Your task to perform on an android device: Search for vegetarian restaurants on Maps Image 0: 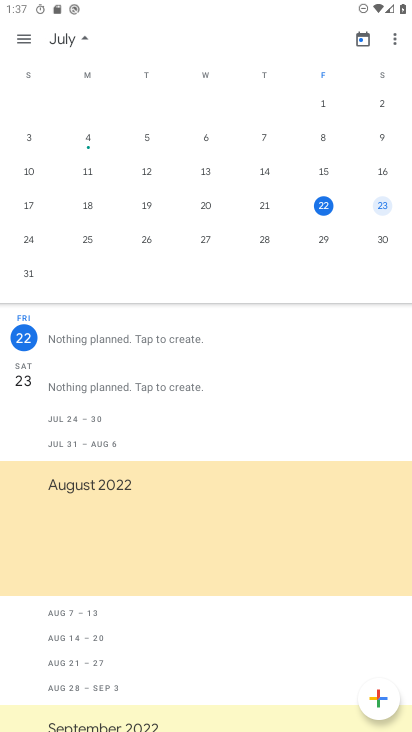
Step 0: press home button
Your task to perform on an android device: Search for vegetarian restaurants on Maps Image 1: 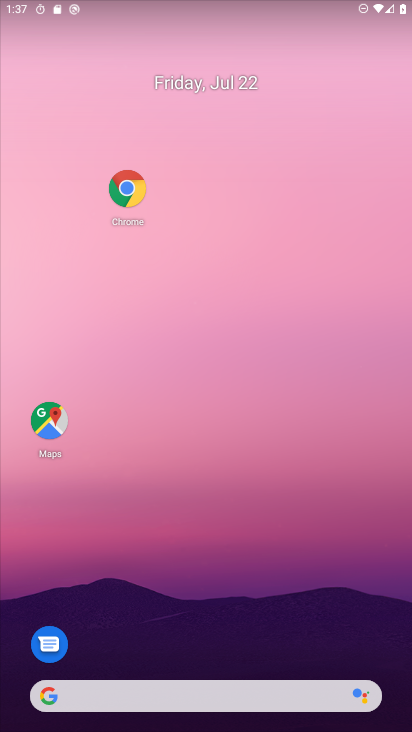
Step 1: click (63, 407)
Your task to perform on an android device: Search for vegetarian restaurants on Maps Image 2: 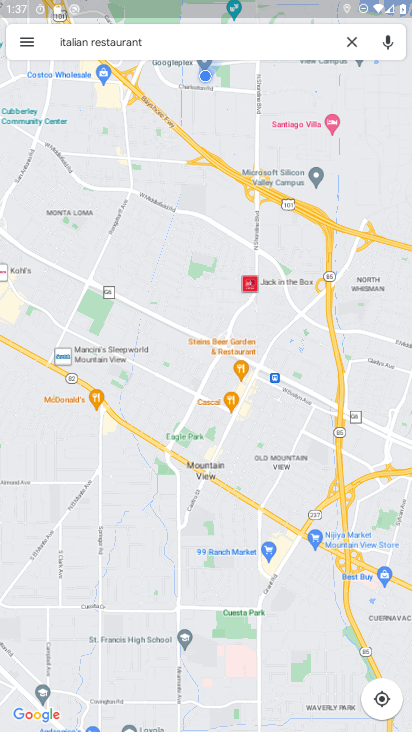
Step 2: click (351, 45)
Your task to perform on an android device: Search for vegetarian restaurants on Maps Image 3: 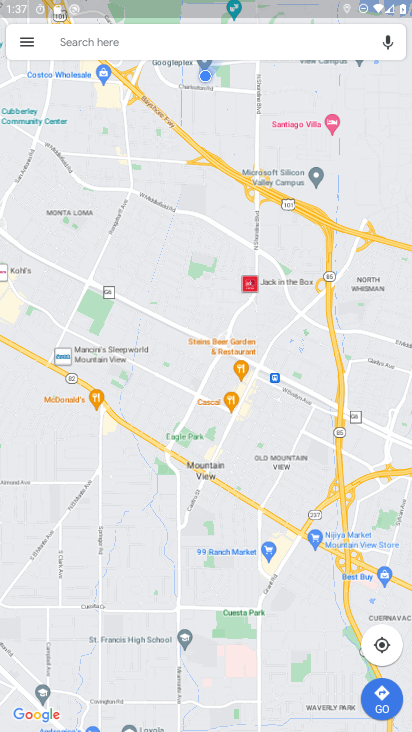
Step 3: click (150, 34)
Your task to perform on an android device: Search for vegetarian restaurants on Maps Image 4: 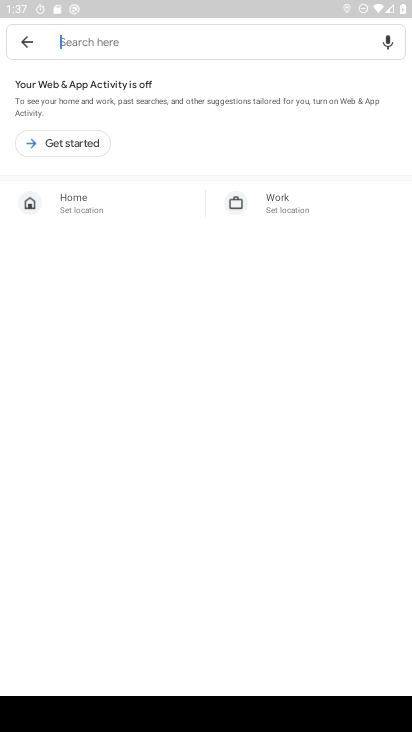
Step 4: type "vegetaria  restauranmt"
Your task to perform on an android device: Search for vegetarian restaurants on Maps Image 5: 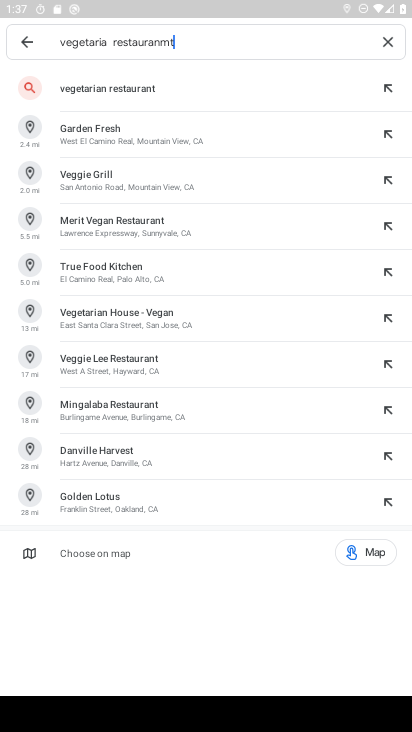
Step 5: click (167, 83)
Your task to perform on an android device: Search for vegetarian restaurants on Maps Image 6: 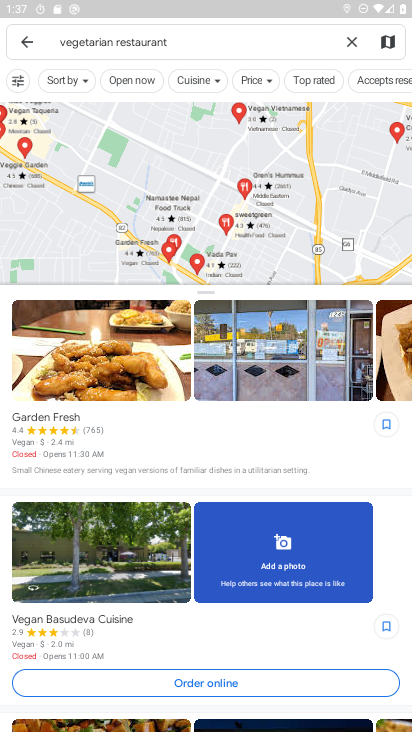
Step 6: task complete